Your task to perform on an android device: turn on sleep mode Image 0: 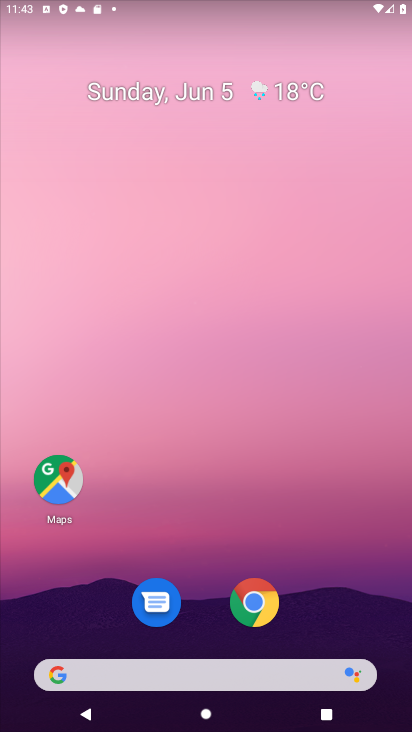
Step 0: task complete